Your task to perform on an android device: toggle pop-ups in chrome Image 0: 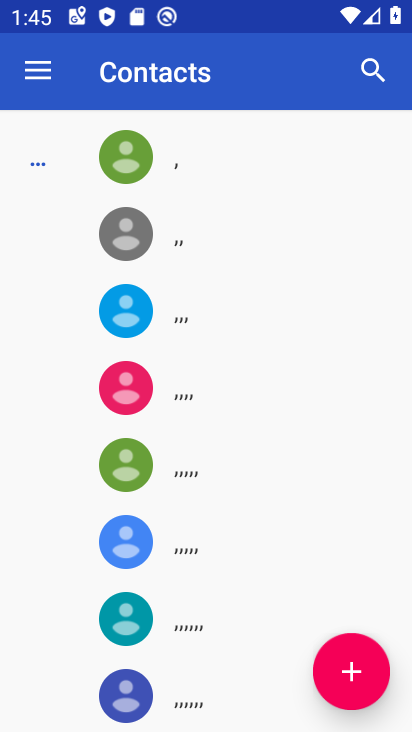
Step 0: press back button
Your task to perform on an android device: toggle pop-ups in chrome Image 1: 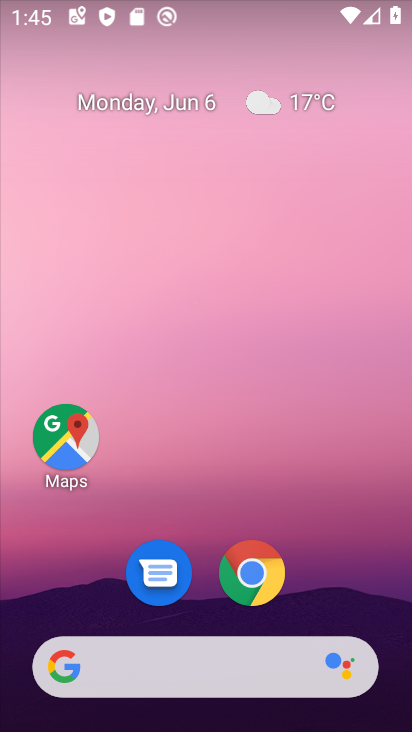
Step 1: click (247, 577)
Your task to perform on an android device: toggle pop-ups in chrome Image 2: 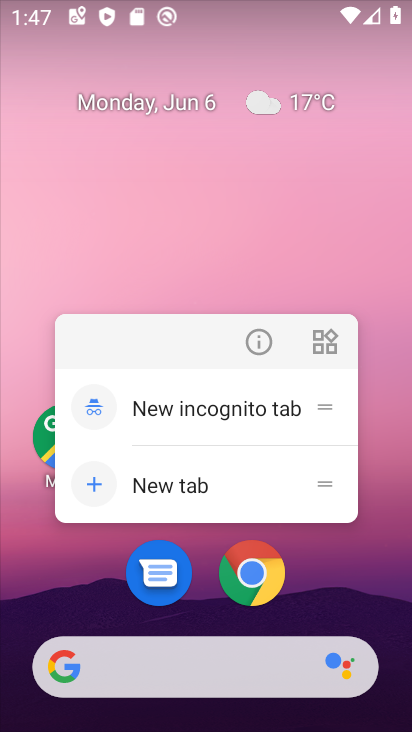
Step 2: click (263, 563)
Your task to perform on an android device: toggle pop-ups in chrome Image 3: 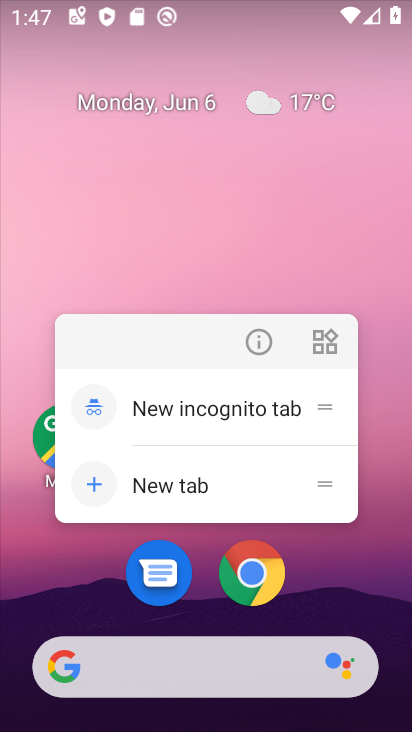
Step 3: click (239, 575)
Your task to perform on an android device: toggle pop-ups in chrome Image 4: 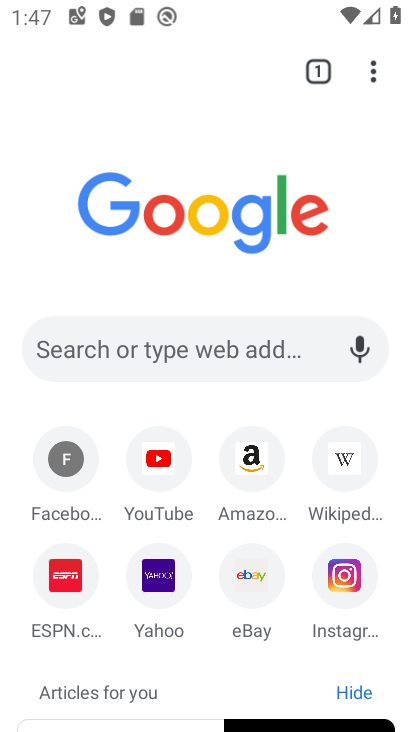
Step 4: click (378, 65)
Your task to perform on an android device: toggle pop-ups in chrome Image 5: 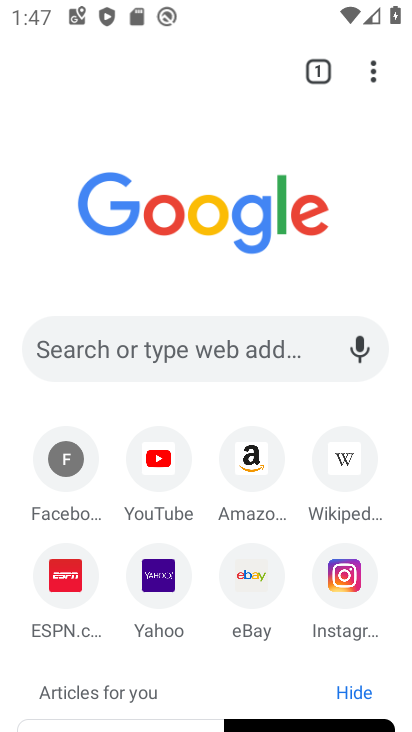
Step 5: drag from (367, 71) to (143, 600)
Your task to perform on an android device: toggle pop-ups in chrome Image 6: 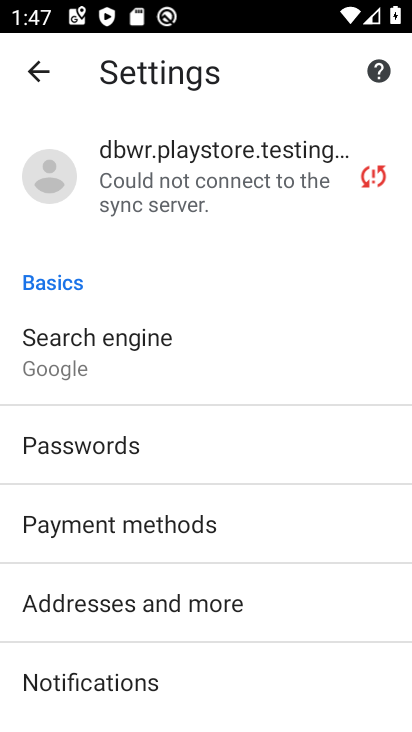
Step 6: drag from (186, 660) to (255, 104)
Your task to perform on an android device: toggle pop-ups in chrome Image 7: 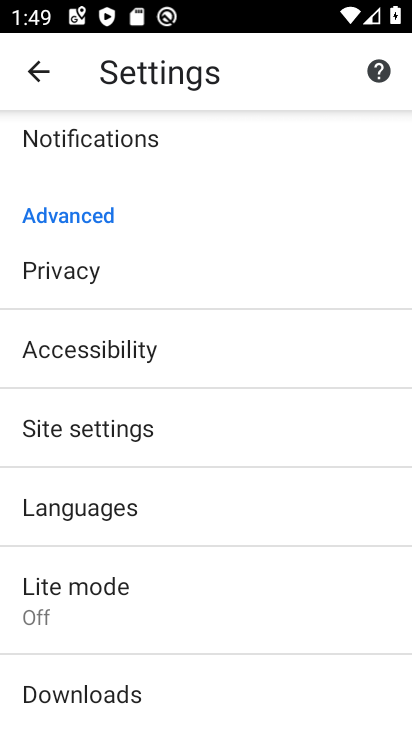
Step 7: click (96, 429)
Your task to perform on an android device: toggle pop-ups in chrome Image 8: 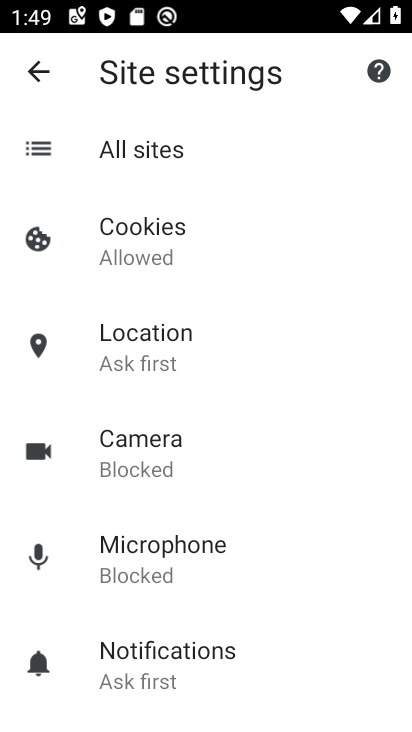
Step 8: drag from (197, 614) to (240, 147)
Your task to perform on an android device: toggle pop-ups in chrome Image 9: 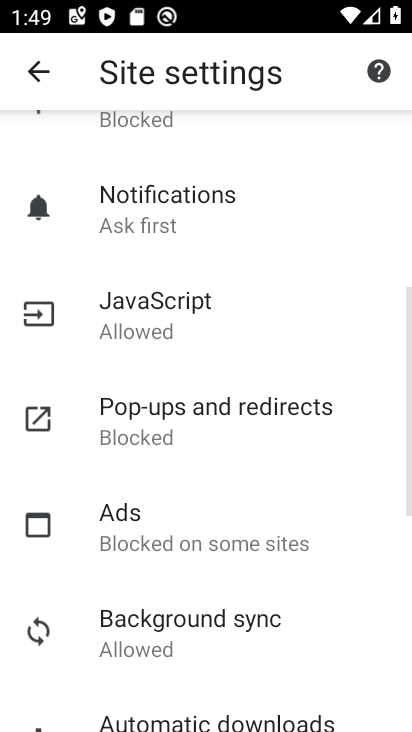
Step 9: click (150, 416)
Your task to perform on an android device: toggle pop-ups in chrome Image 10: 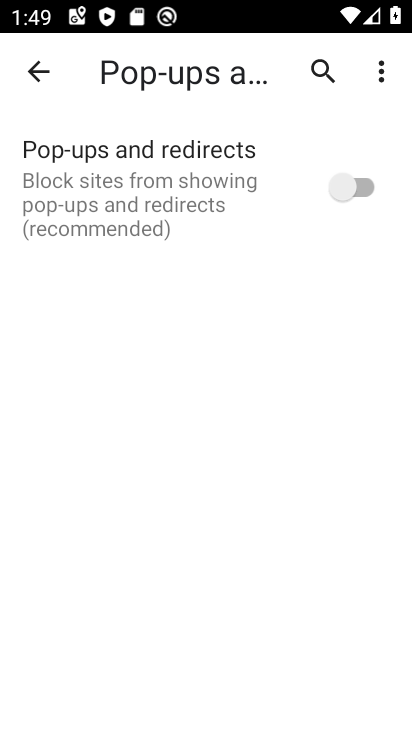
Step 10: click (338, 186)
Your task to perform on an android device: toggle pop-ups in chrome Image 11: 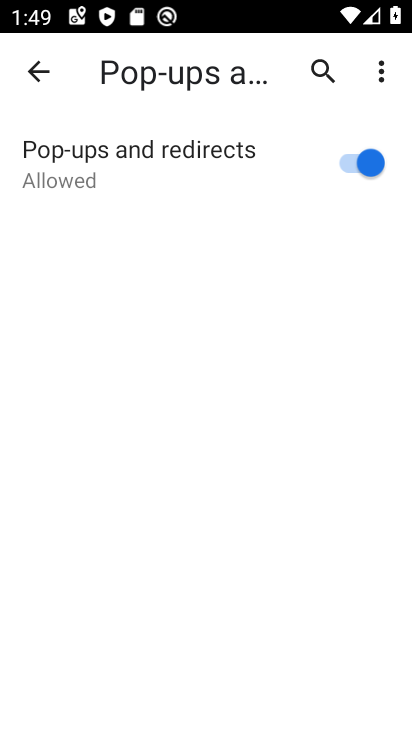
Step 11: task complete